Your task to perform on an android device: Open Google Chrome Image 0: 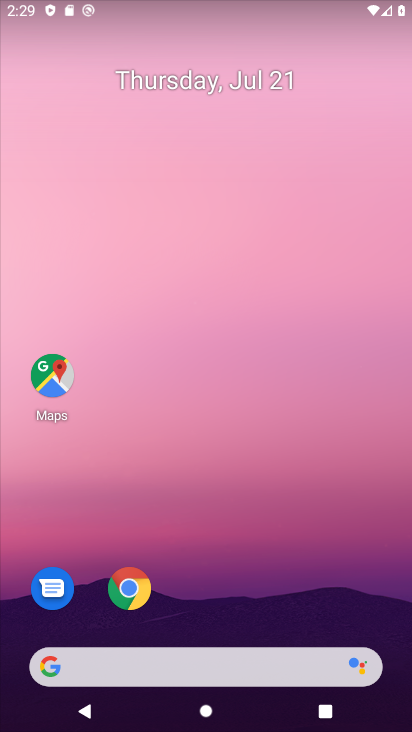
Step 0: click (129, 591)
Your task to perform on an android device: Open Google Chrome Image 1: 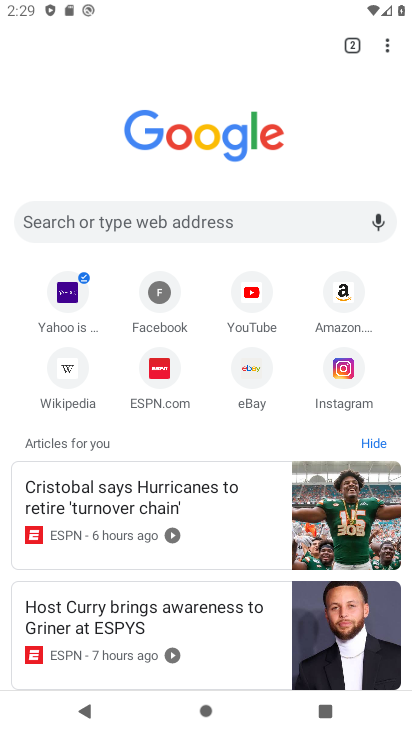
Step 1: task complete